Your task to perform on an android device: add a label to a message in the gmail app Image 0: 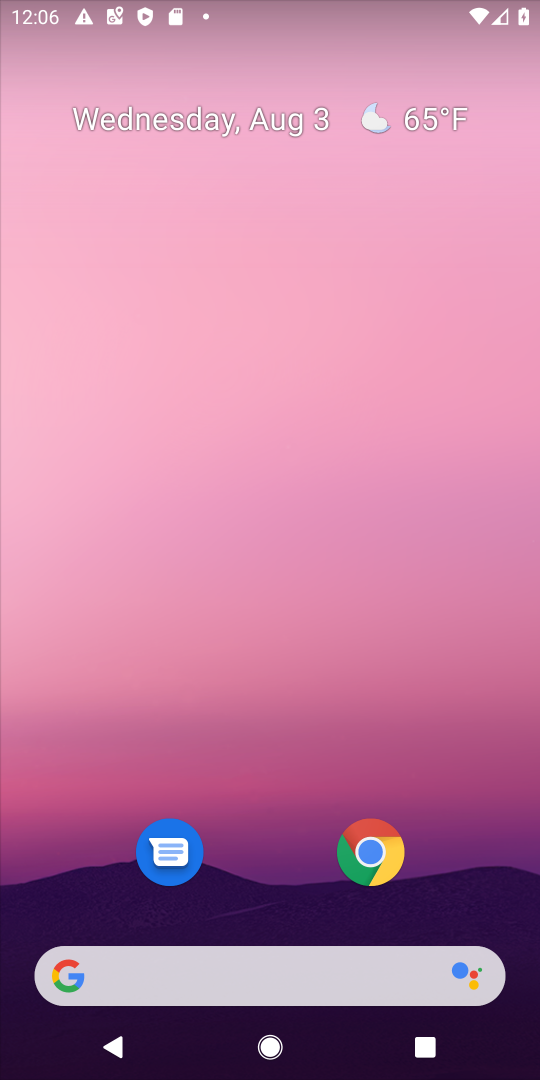
Step 0: drag from (452, 883) to (255, 93)
Your task to perform on an android device: add a label to a message in the gmail app Image 1: 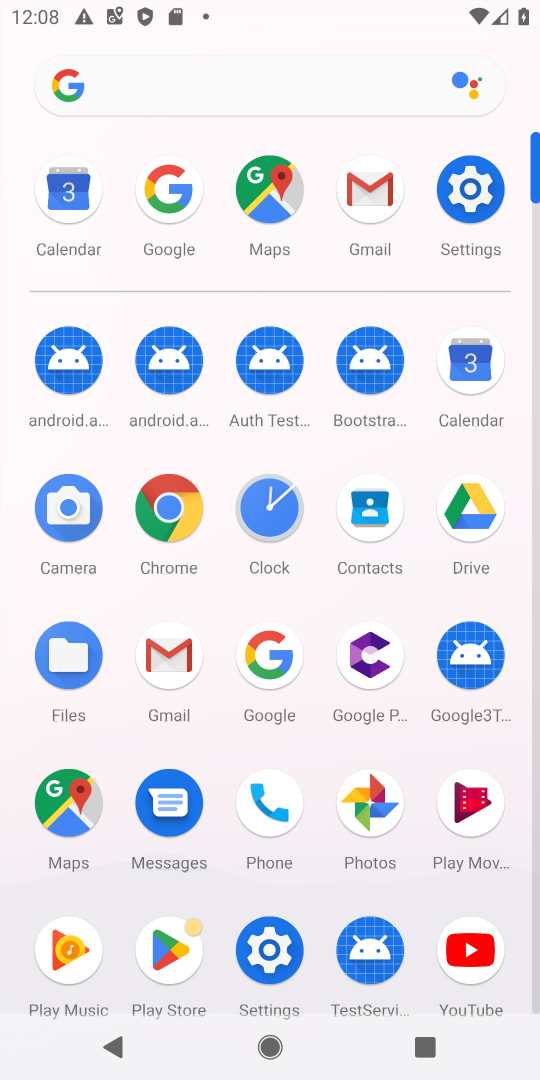
Step 1: click (153, 682)
Your task to perform on an android device: add a label to a message in the gmail app Image 2: 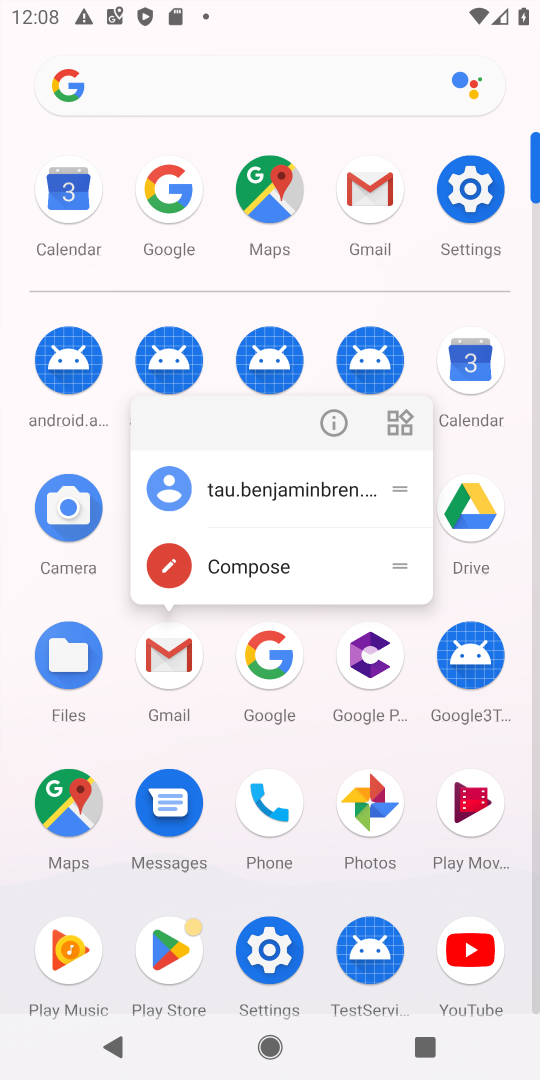
Step 2: click (153, 682)
Your task to perform on an android device: add a label to a message in the gmail app Image 3: 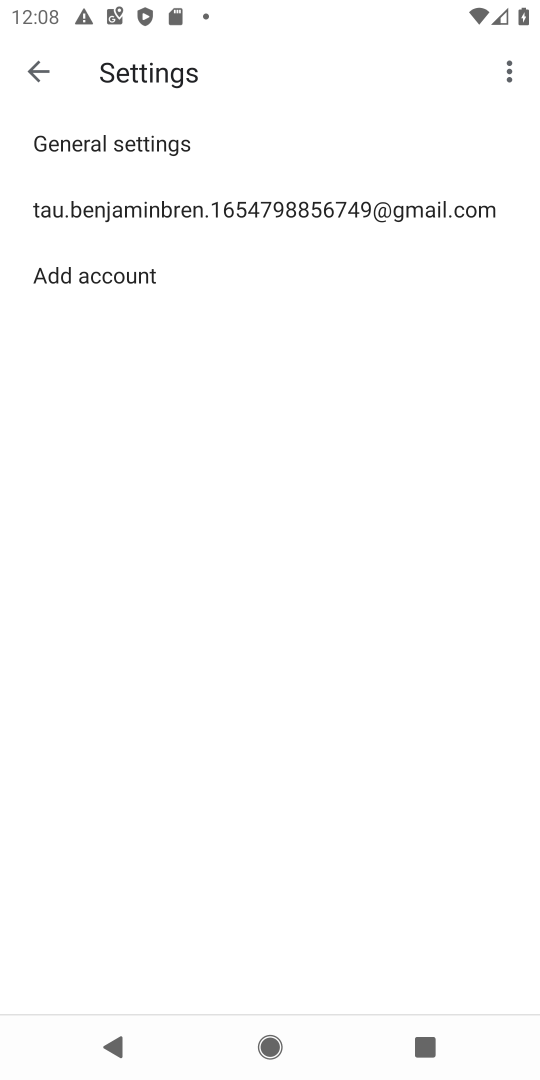
Step 3: click (282, 230)
Your task to perform on an android device: add a label to a message in the gmail app Image 4: 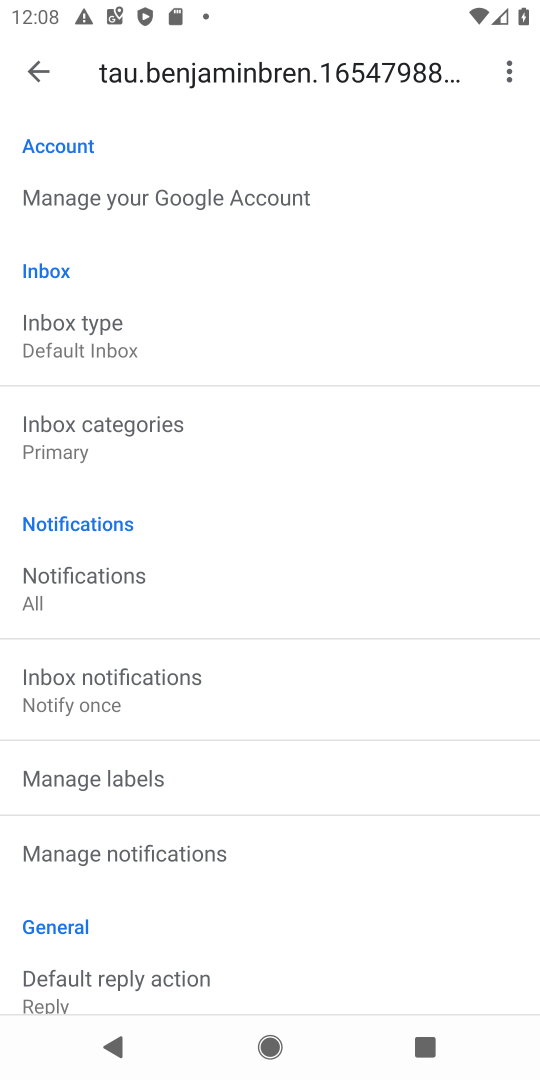
Step 4: task complete